Your task to perform on an android device: change the clock display to digital Image 0: 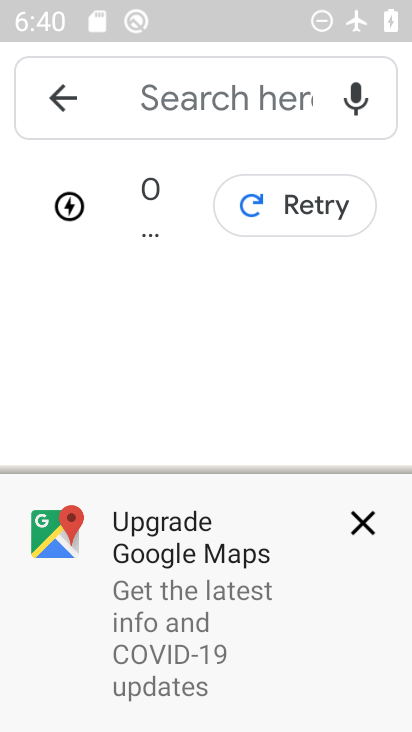
Step 0: press home button
Your task to perform on an android device: change the clock display to digital Image 1: 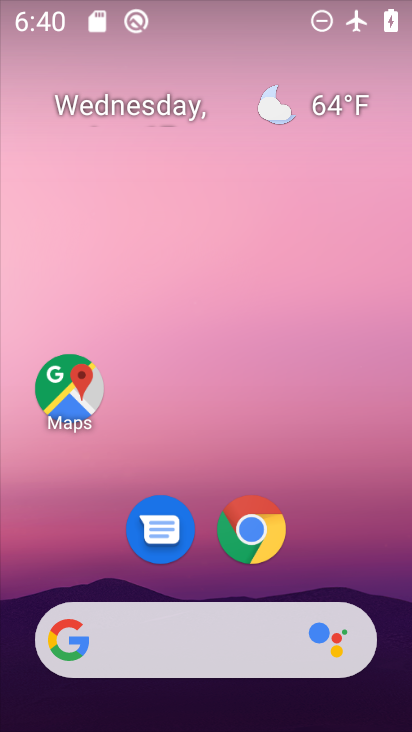
Step 1: drag from (204, 476) to (256, 54)
Your task to perform on an android device: change the clock display to digital Image 2: 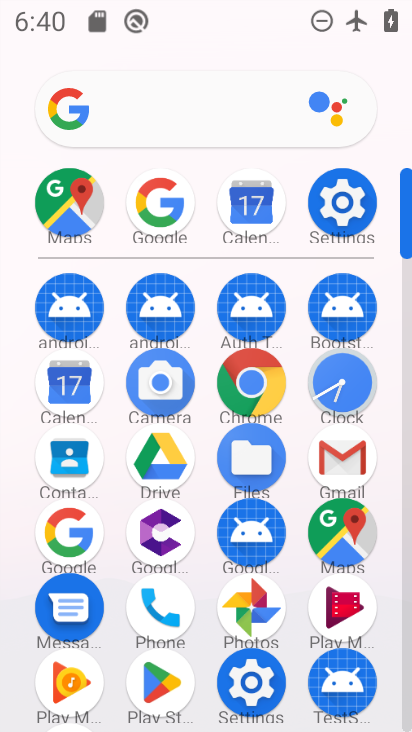
Step 2: click (337, 387)
Your task to perform on an android device: change the clock display to digital Image 3: 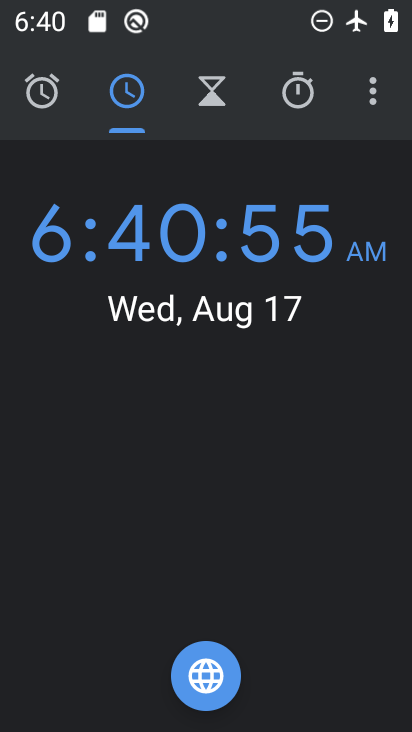
Step 3: click (376, 86)
Your task to perform on an android device: change the clock display to digital Image 4: 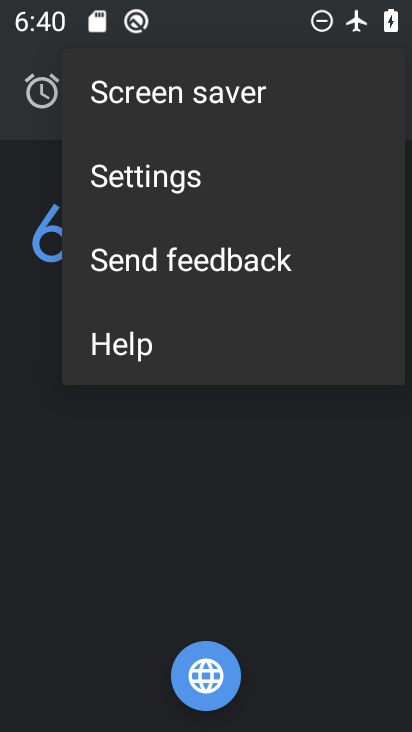
Step 4: click (160, 172)
Your task to perform on an android device: change the clock display to digital Image 5: 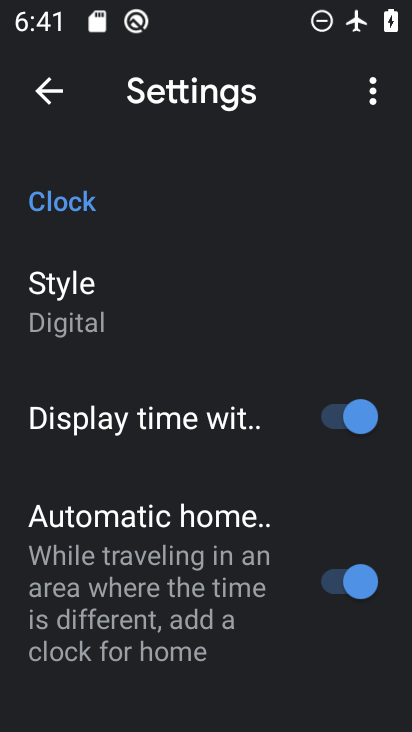
Step 5: task complete